Your task to perform on an android device: Search for apple airpods on walmart.com, select the first entry, add it to the cart, then select checkout. Image 0: 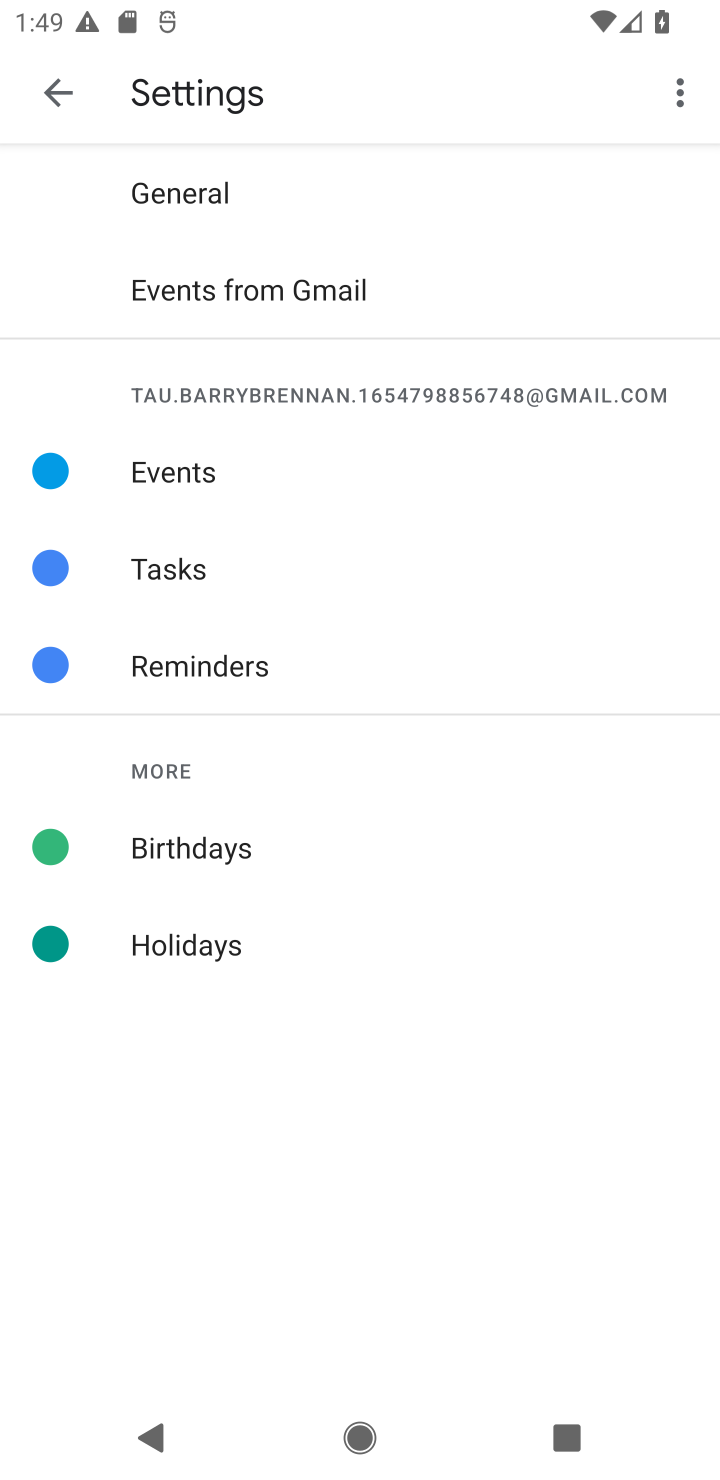
Step 0: press home button
Your task to perform on an android device: Search for apple airpods on walmart.com, select the first entry, add it to the cart, then select checkout. Image 1: 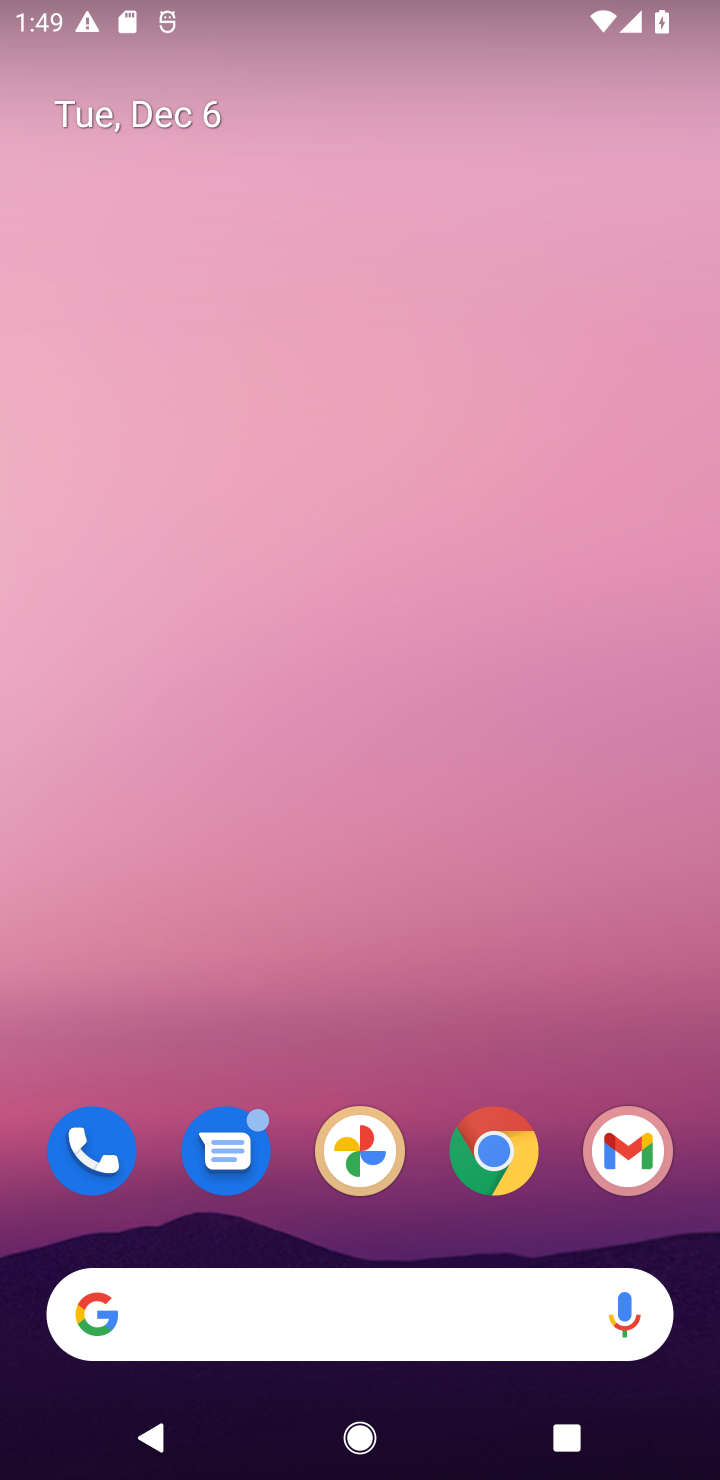
Step 1: click (493, 1155)
Your task to perform on an android device: Search for apple airpods on walmart.com, select the first entry, add it to the cart, then select checkout. Image 2: 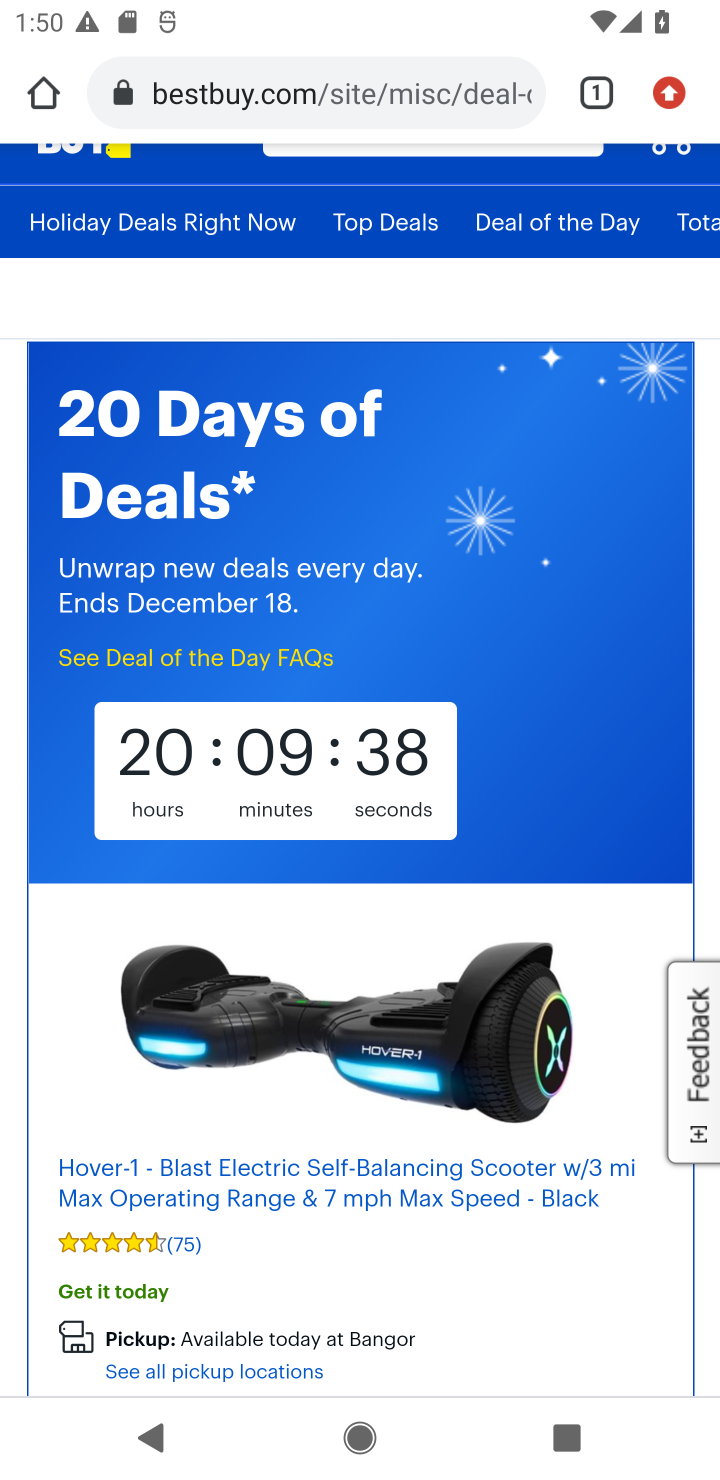
Step 2: click (270, 106)
Your task to perform on an android device: Search for apple airpods on walmart.com, select the first entry, add it to the cart, then select checkout. Image 3: 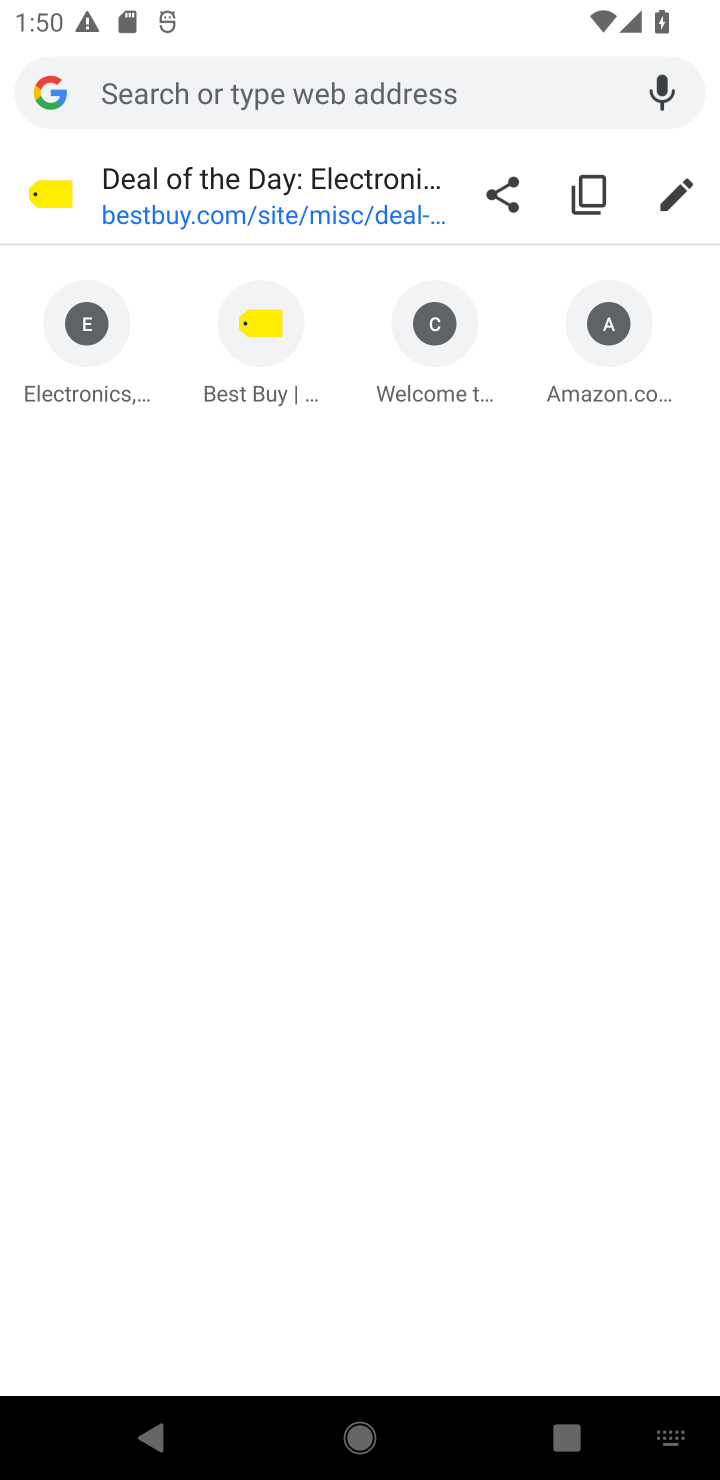
Step 3: type "walmart.com"
Your task to perform on an android device: Search for apple airpods on walmart.com, select the first entry, add it to the cart, then select checkout. Image 4: 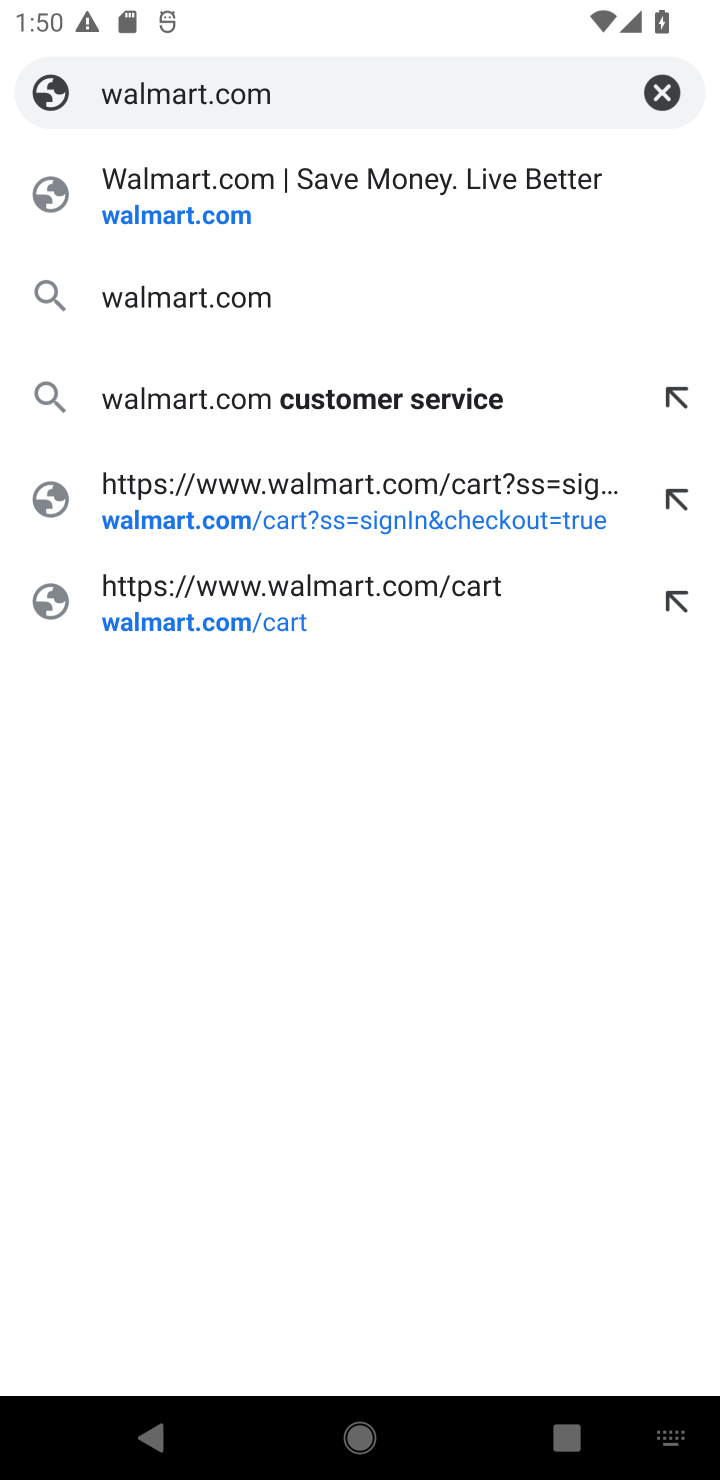
Step 4: click (176, 219)
Your task to perform on an android device: Search for apple airpods on walmart.com, select the first entry, add it to the cart, then select checkout. Image 5: 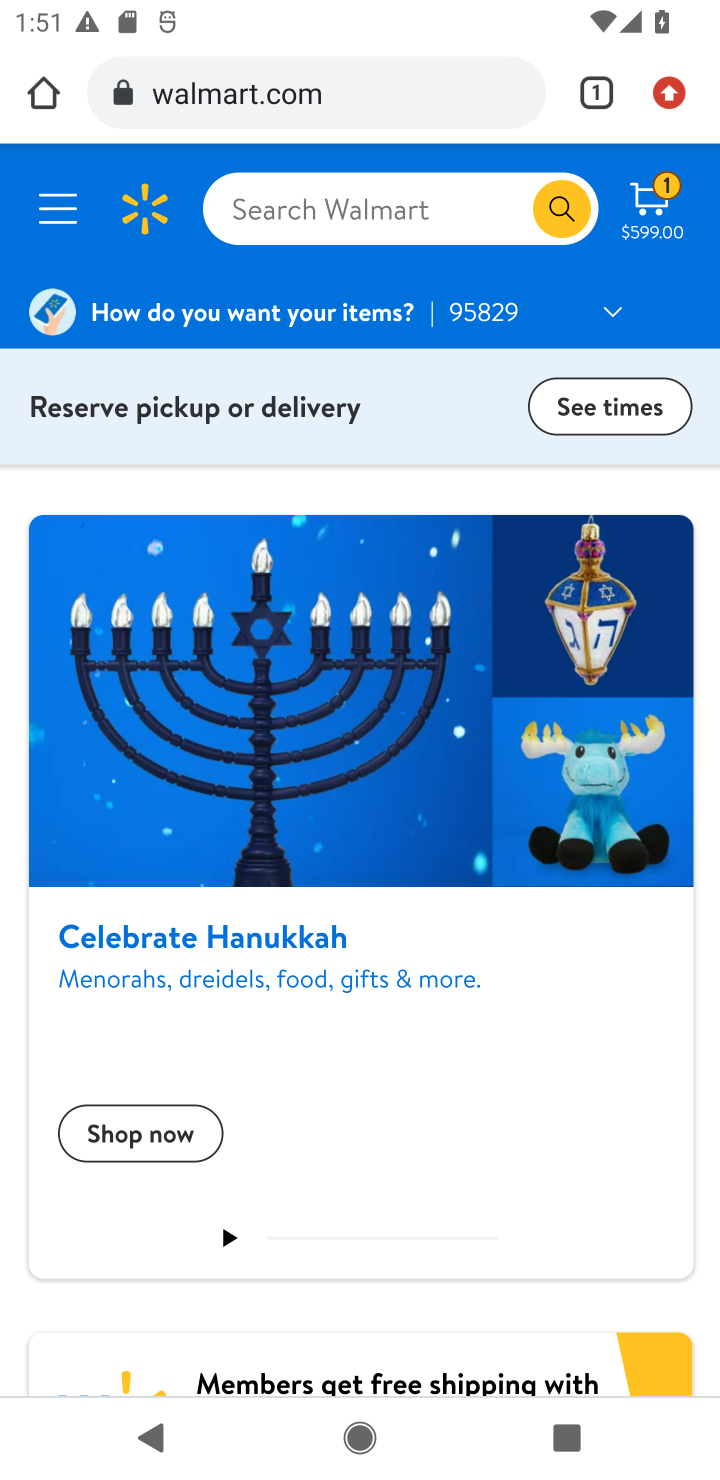
Step 5: click (289, 230)
Your task to perform on an android device: Search for apple airpods on walmart.com, select the first entry, add it to the cart, then select checkout. Image 6: 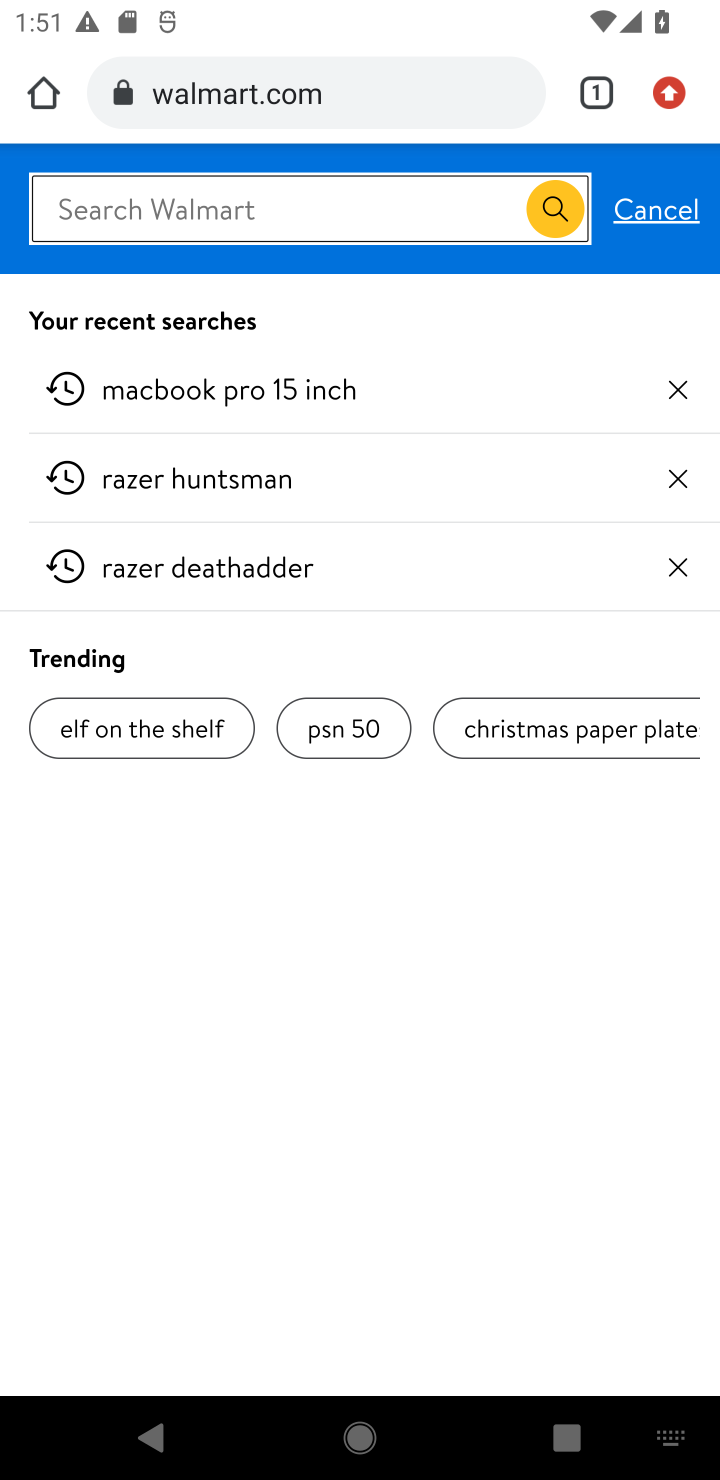
Step 6: type "apple airpods"
Your task to perform on an android device: Search for apple airpods on walmart.com, select the first entry, add it to the cart, then select checkout. Image 7: 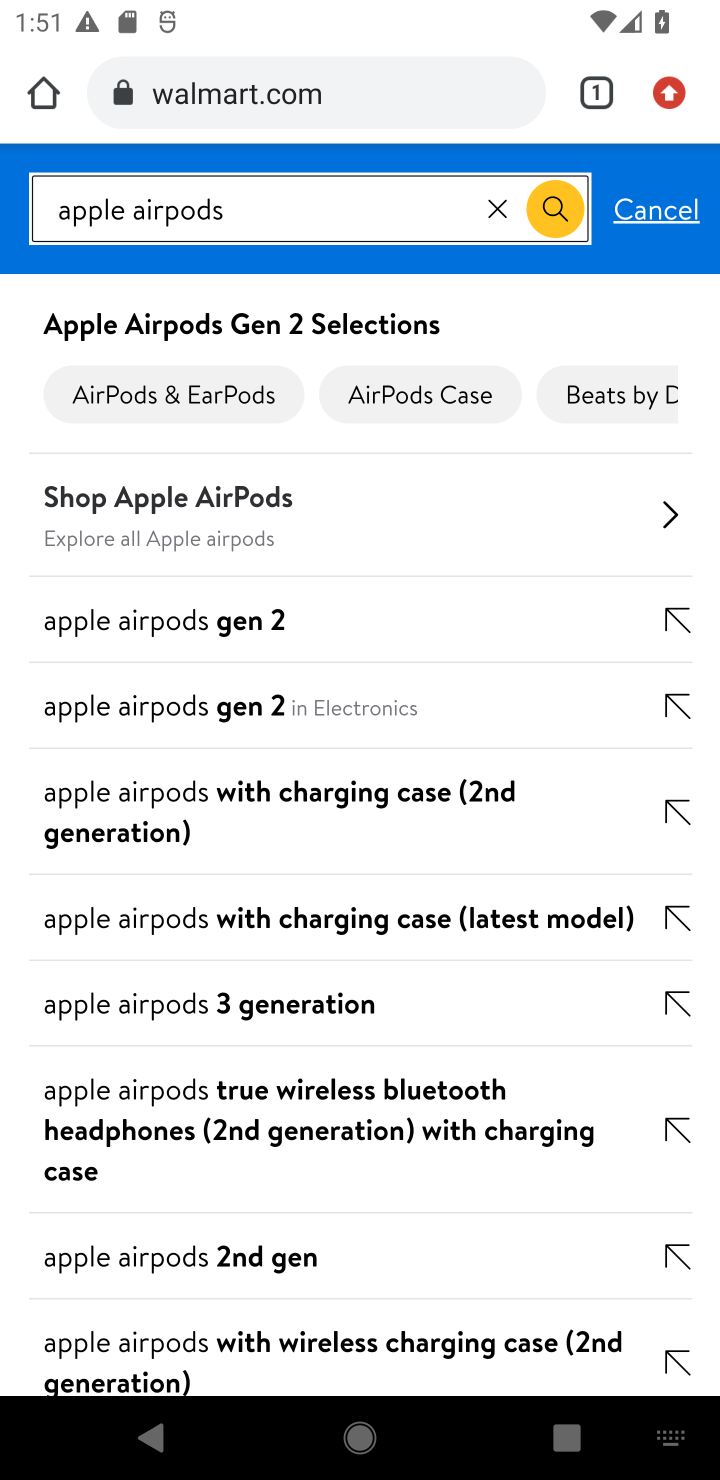
Step 7: click (559, 217)
Your task to perform on an android device: Search for apple airpods on walmart.com, select the first entry, add it to the cart, then select checkout. Image 8: 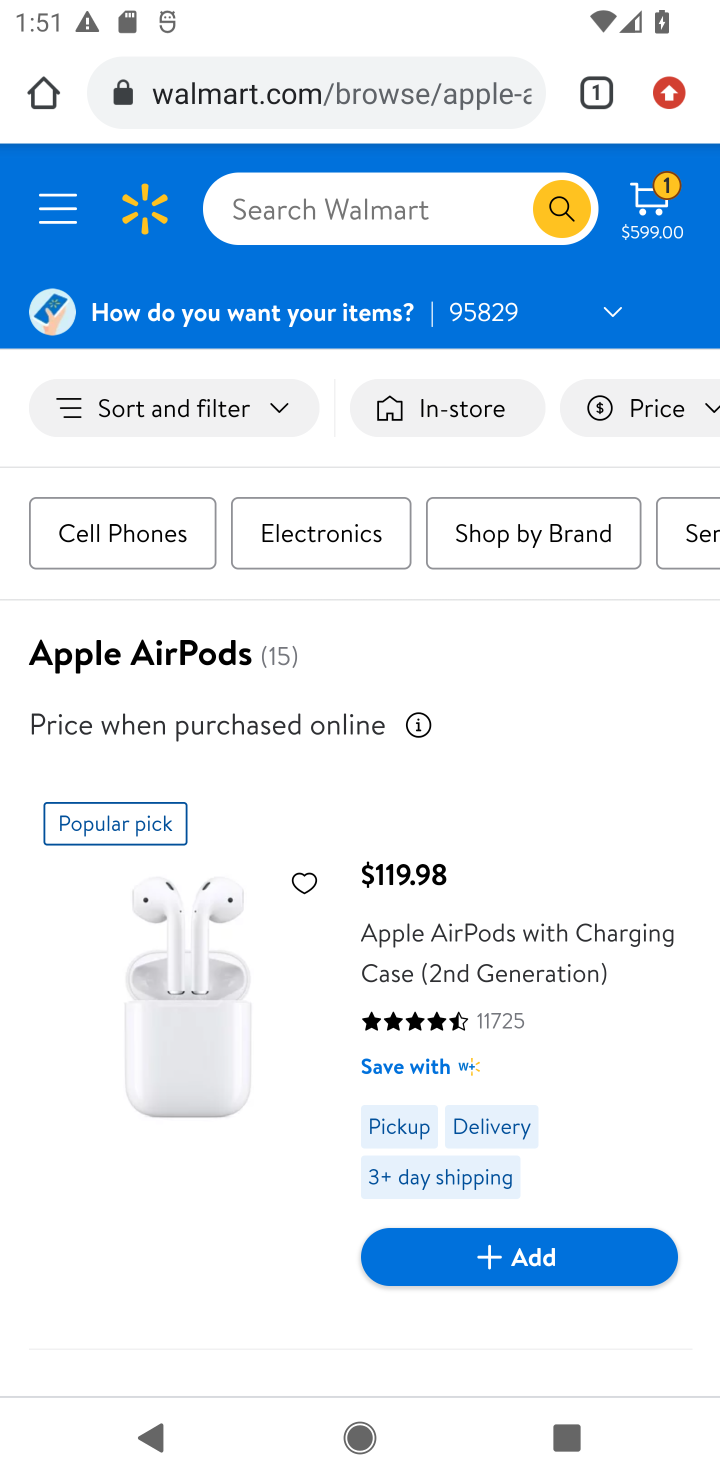
Step 8: click (533, 975)
Your task to perform on an android device: Search for apple airpods on walmart.com, select the first entry, add it to the cart, then select checkout. Image 9: 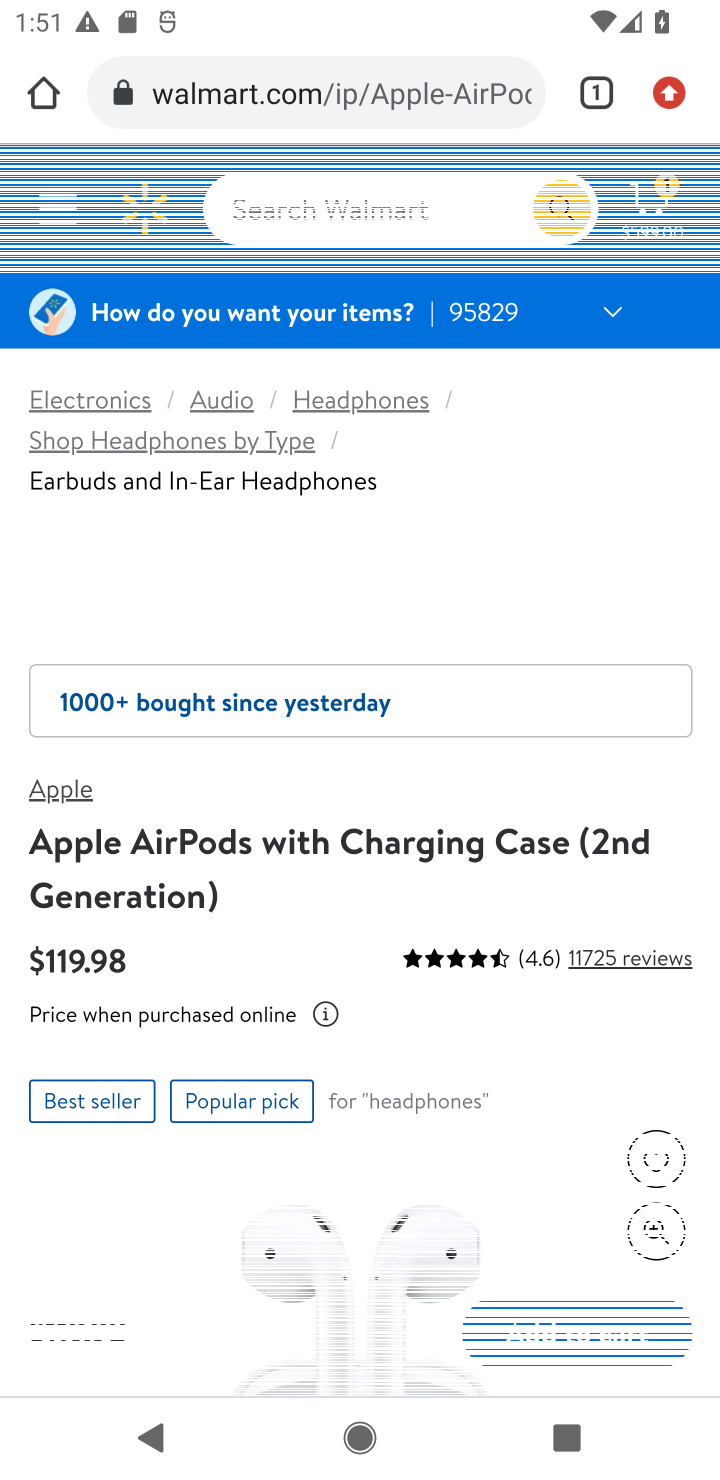
Step 9: drag from (533, 1119) to (529, 565)
Your task to perform on an android device: Search for apple airpods on walmart.com, select the first entry, add it to the cart, then select checkout. Image 10: 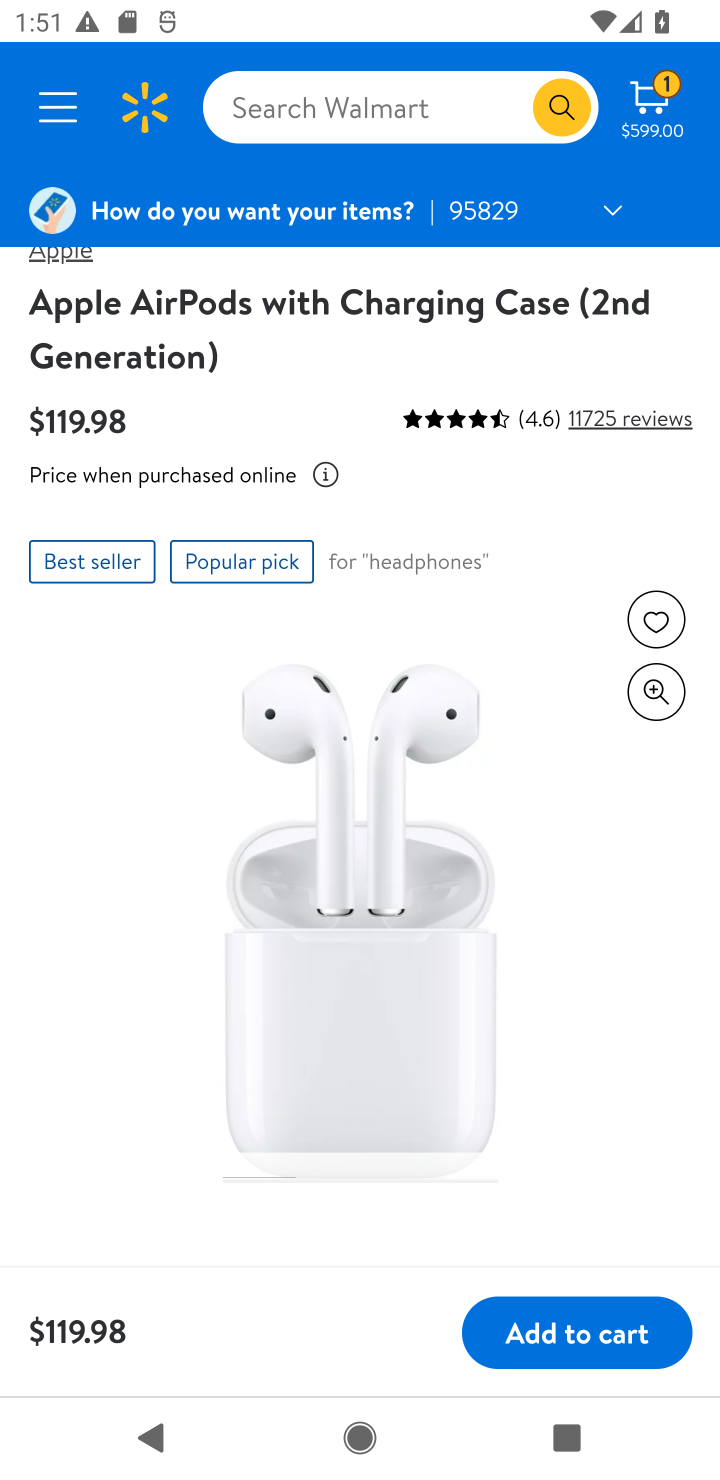
Step 10: click (581, 1331)
Your task to perform on an android device: Search for apple airpods on walmart.com, select the first entry, add it to the cart, then select checkout. Image 11: 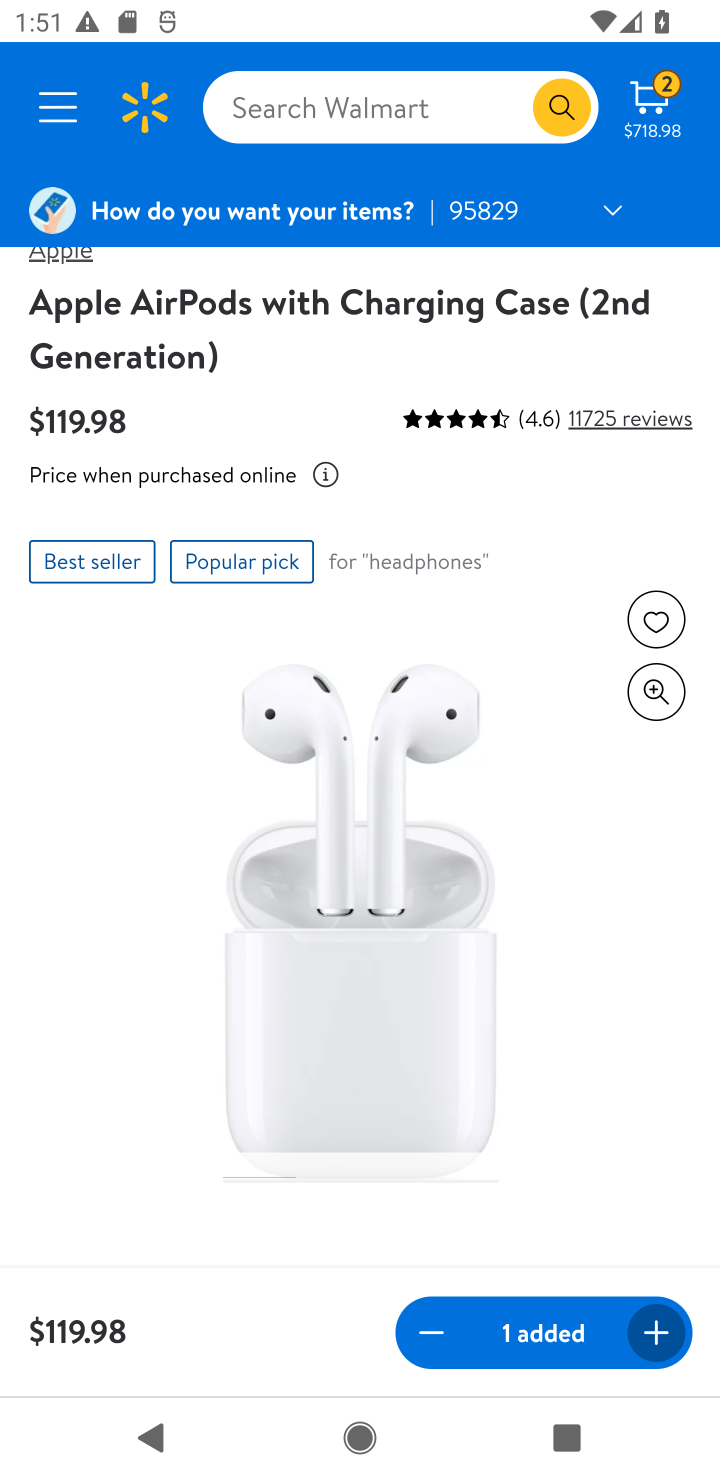
Step 11: click (661, 127)
Your task to perform on an android device: Search for apple airpods on walmart.com, select the first entry, add it to the cart, then select checkout. Image 12: 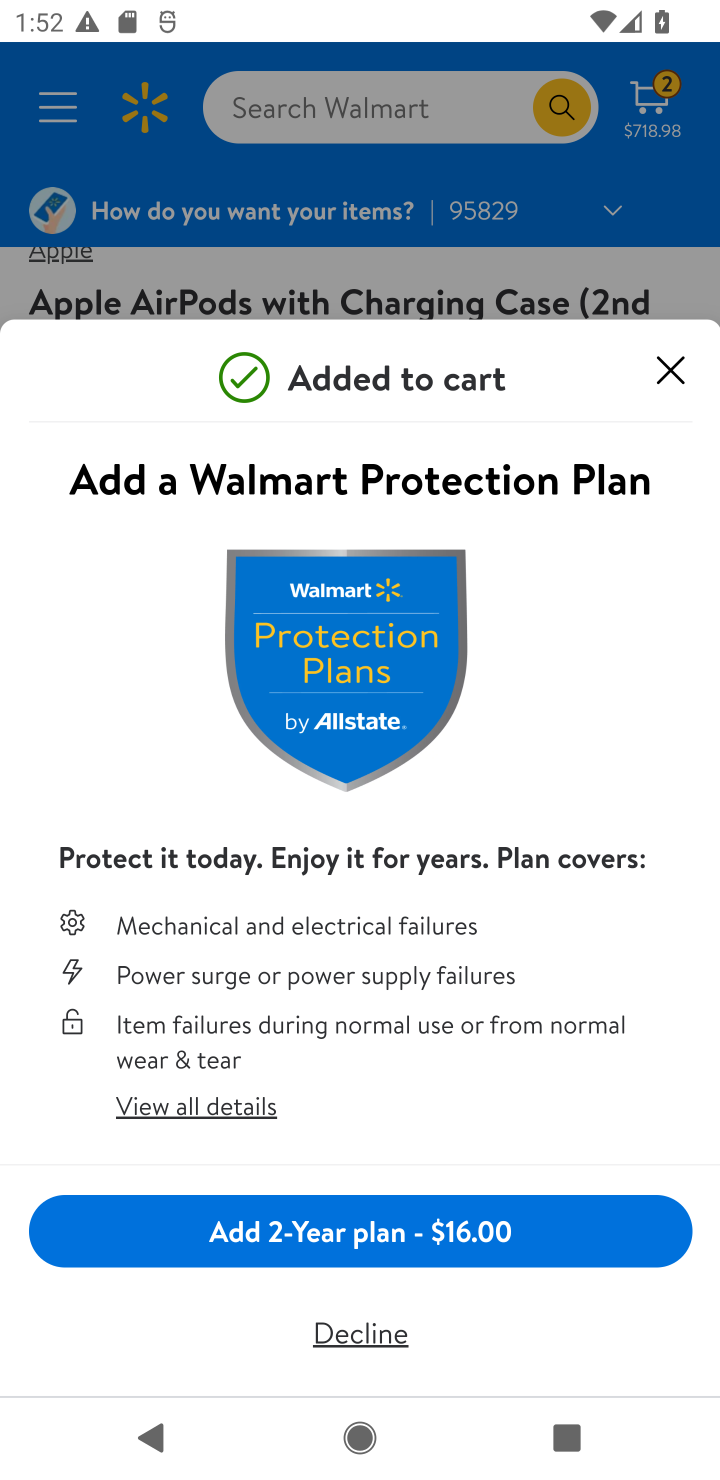
Step 12: click (674, 378)
Your task to perform on an android device: Search for apple airpods on walmart.com, select the first entry, add it to the cart, then select checkout. Image 13: 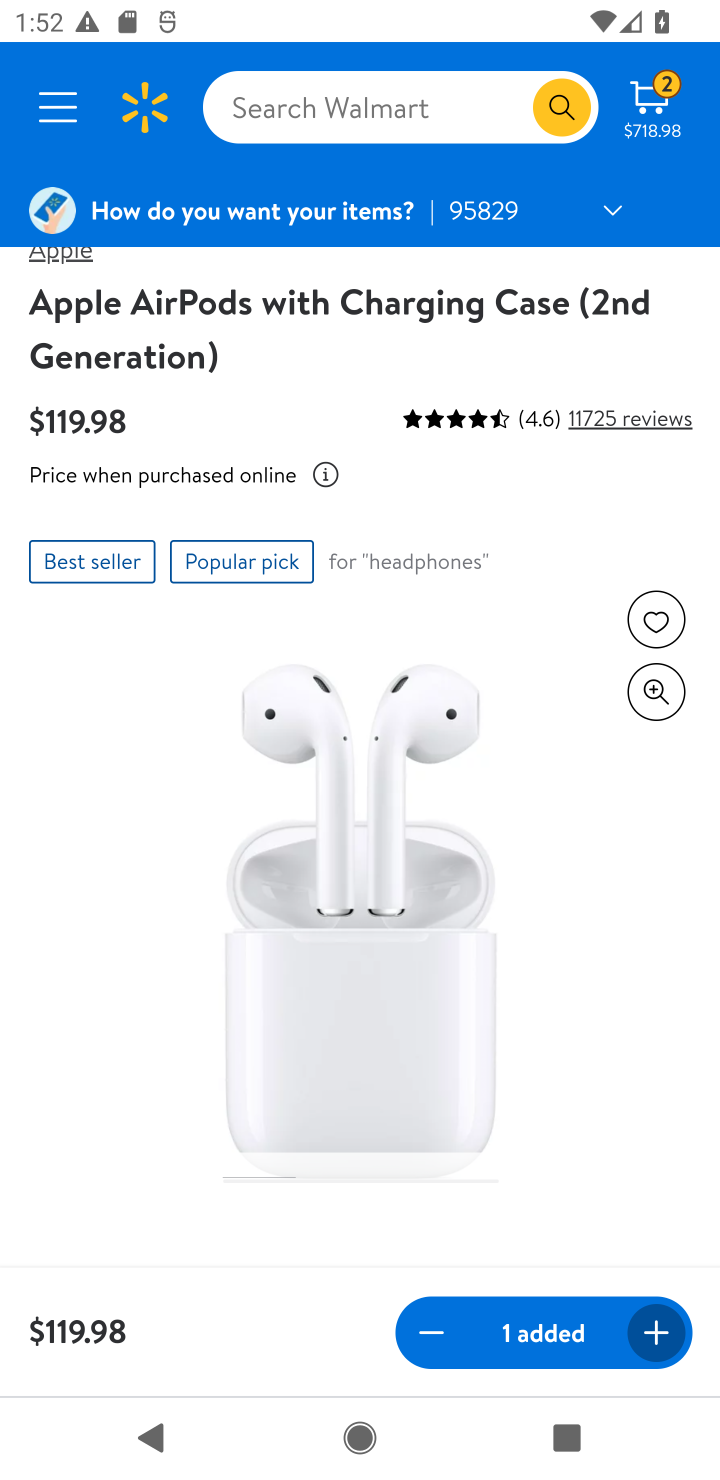
Step 13: click (658, 113)
Your task to perform on an android device: Search for apple airpods on walmart.com, select the first entry, add it to the cart, then select checkout. Image 14: 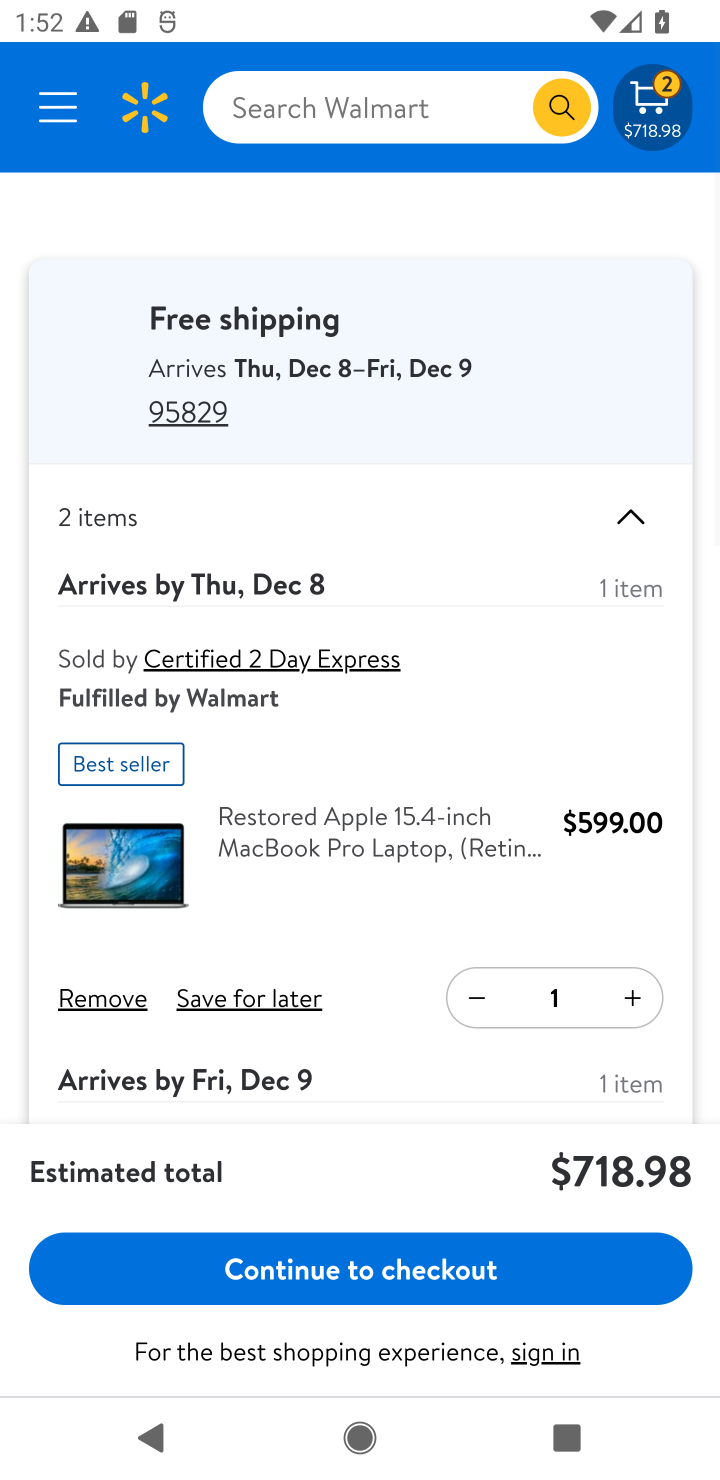
Step 14: click (367, 1258)
Your task to perform on an android device: Search for apple airpods on walmart.com, select the first entry, add it to the cart, then select checkout. Image 15: 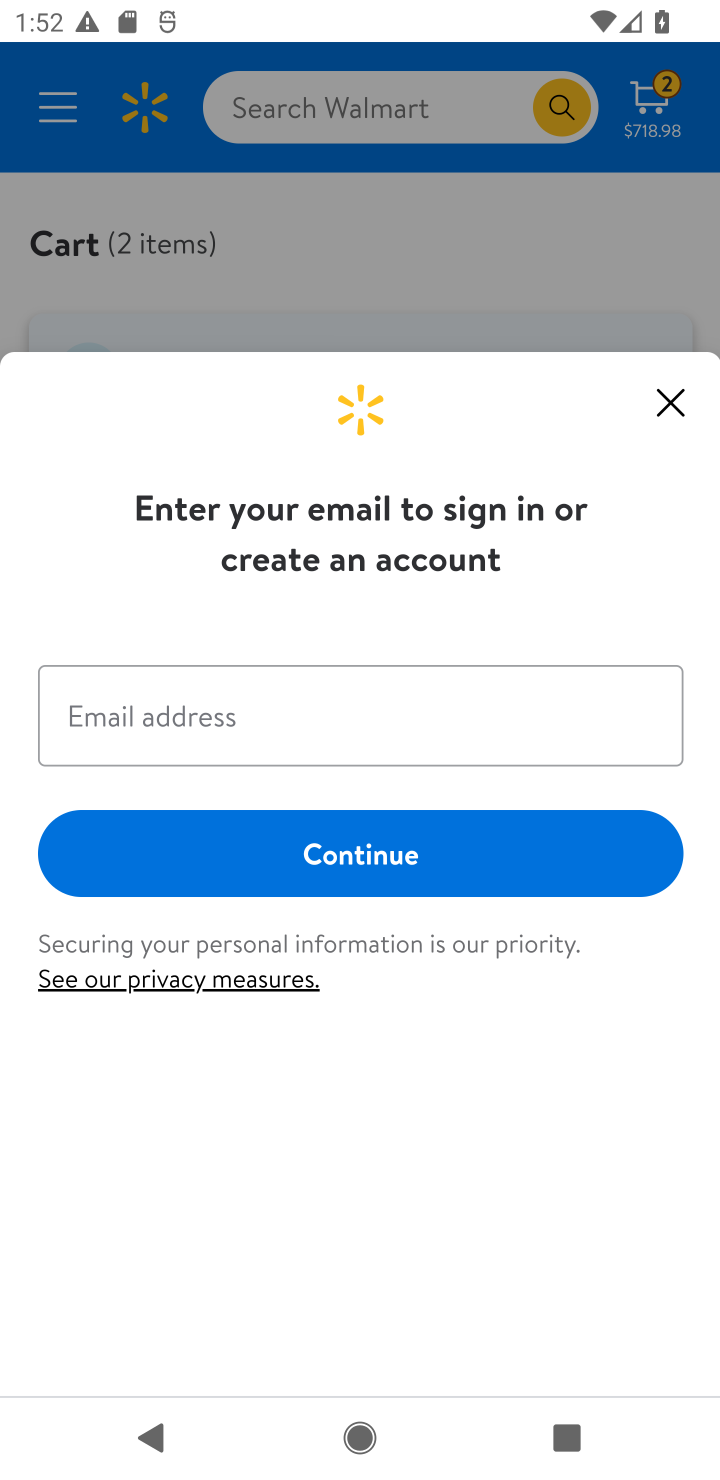
Step 15: task complete